Your task to perform on an android device: Open calendar and show me the first week of next month Image 0: 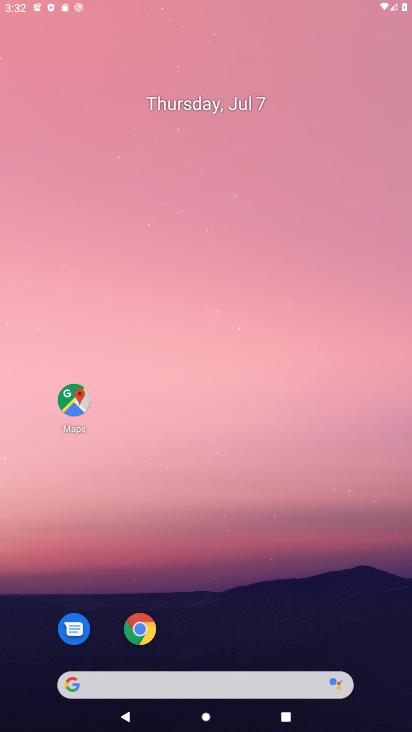
Step 0: click (197, 314)
Your task to perform on an android device: Open calendar and show me the first week of next month Image 1: 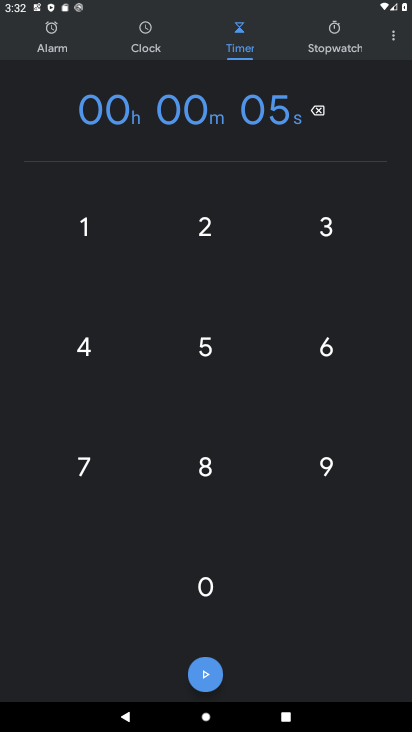
Step 1: press home button
Your task to perform on an android device: Open calendar and show me the first week of next month Image 2: 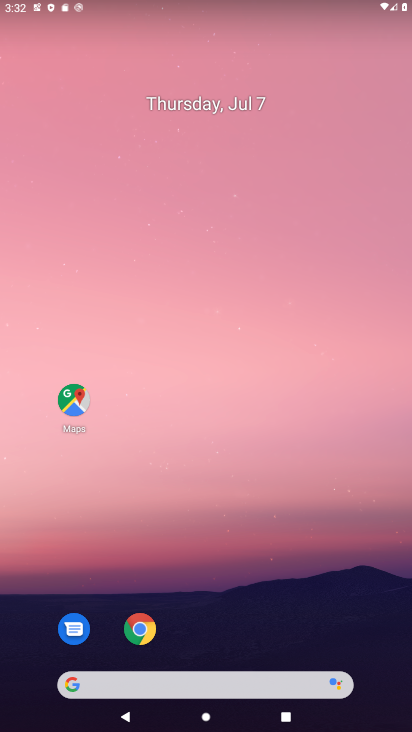
Step 2: drag from (204, 592) to (184, 223)
Your task to perform on an android device: Open calendar and show me the first week of next month Image 3: 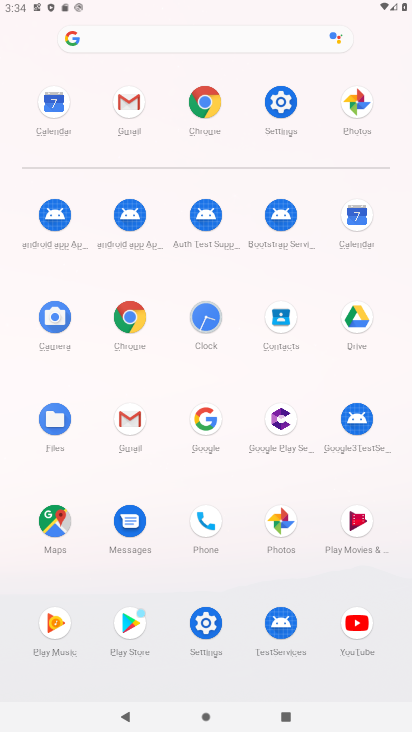
Step 3: click (351, 198)
Your task to perform on an android device: Open calendar and show me the first week of next month Image 4: 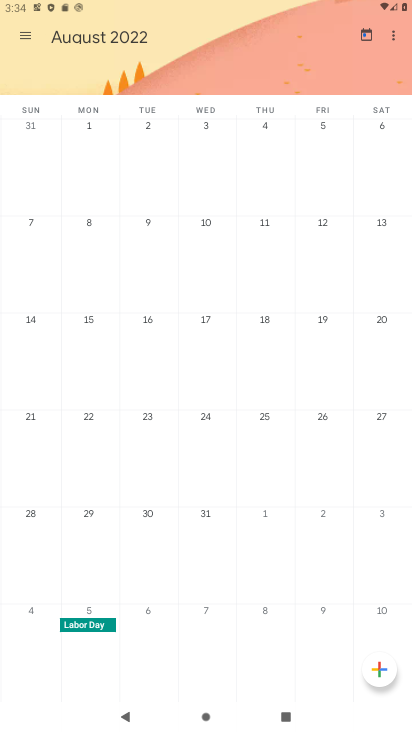
Step 4: drag from (51, 296) to (343, 355)
Your task to perform on an android device: Open calendar and show me the first week of next month Image 5: 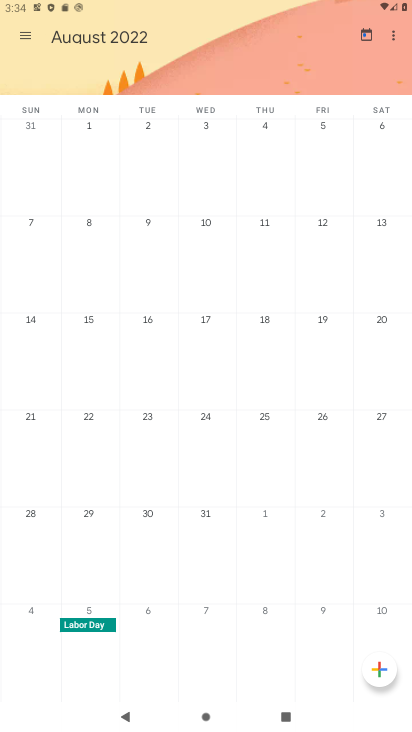
Step 5: drag from (8, 306) to (387, 388)
Your task to perform on an android device: Open calendar and show me the first week of next month Image 6: 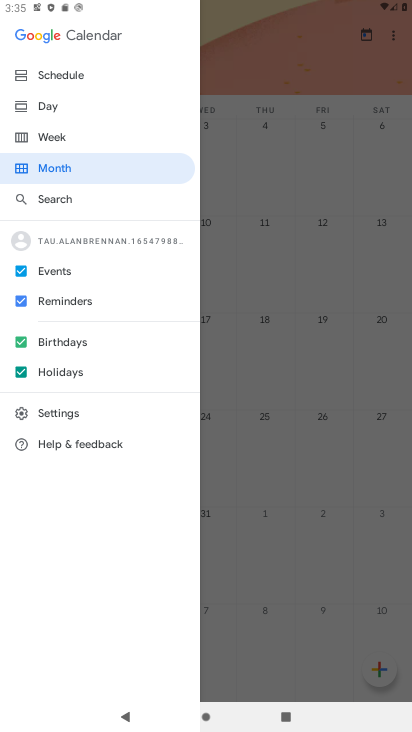
Step 6: click (298, 292)
Your task to perform on an android device: Open calendar and show me the first week of next month Image 7: 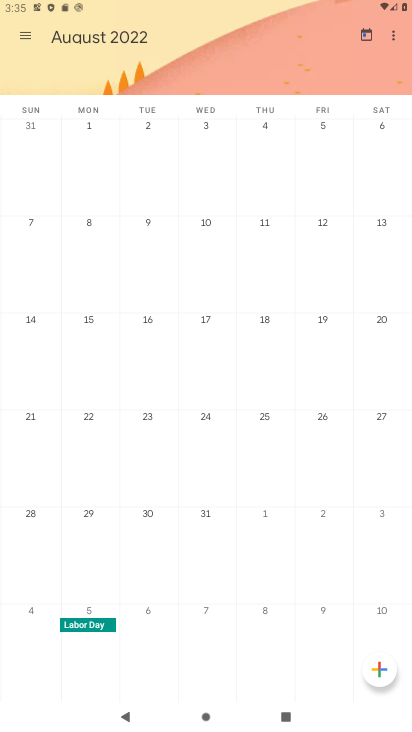
Step 7: task complete